Your task to perform on an android device: Go to Yahoo.com Image 0: 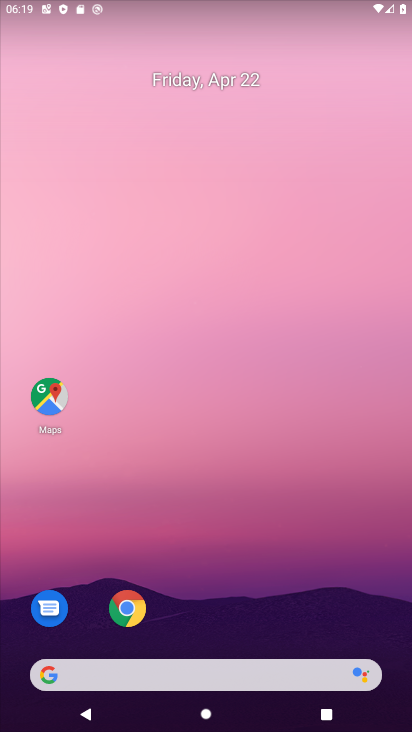
Step 0: click (126, 615)
Your task to perform on an android device: Go to Yahoo.com Image 1: 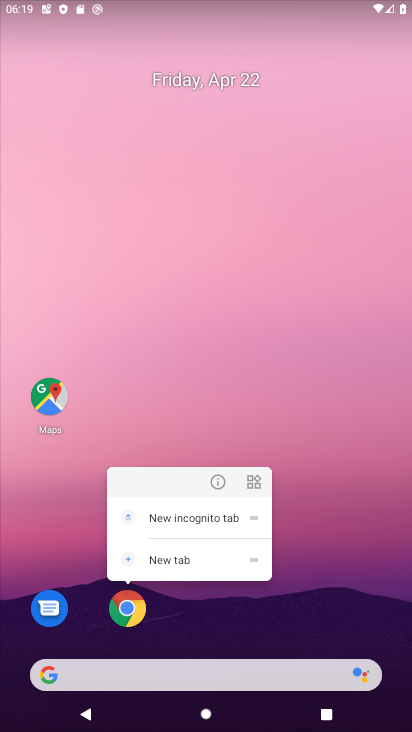
Step 1: click (128, 631)
Your task to perform on an android device: Go to Yahoo.com Image 2: 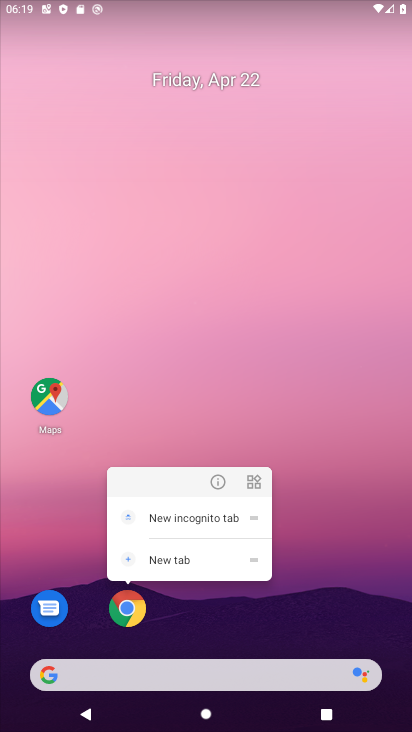
Step 2: click (127, 618)
Your task to perform on an android device: Go to Yahoo.com Image 3: 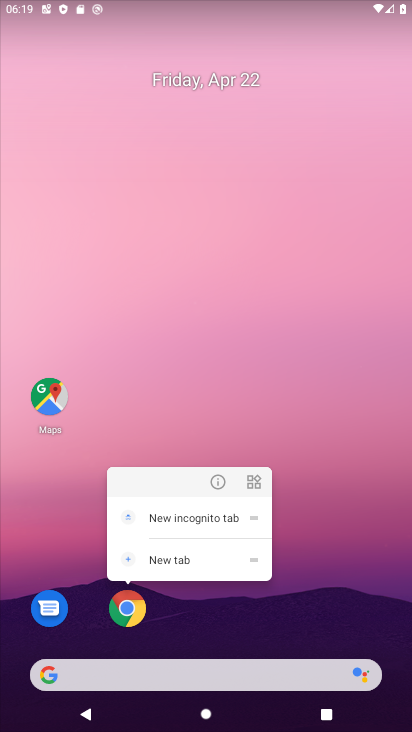
Step 3: click (122, 605)
Your task to perform on an android device: Go to Yahoo.com Image 4: 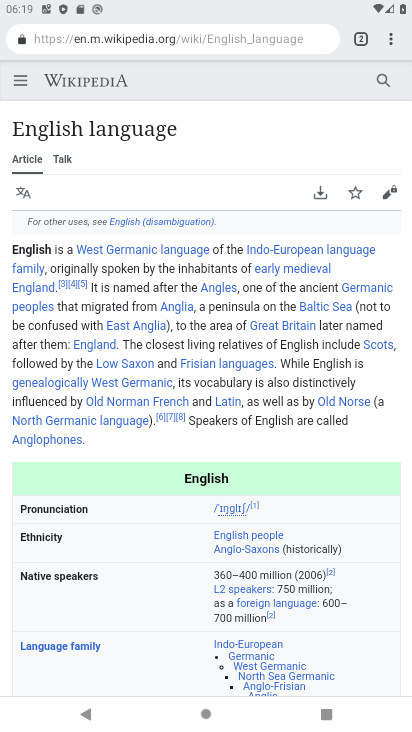
Step 4: click (363, 38)
Your task to perform on an android device: Go to Yahoo.com Image 5: 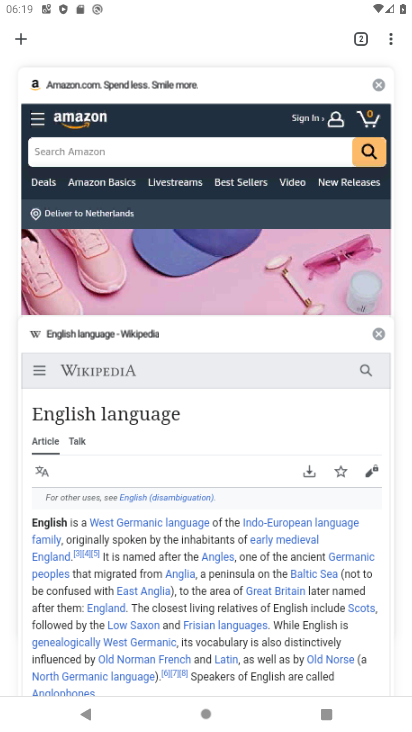
Step 5: click (376, 82)
Your task to perform on an android device: Go to Yahoo.com Image 6: 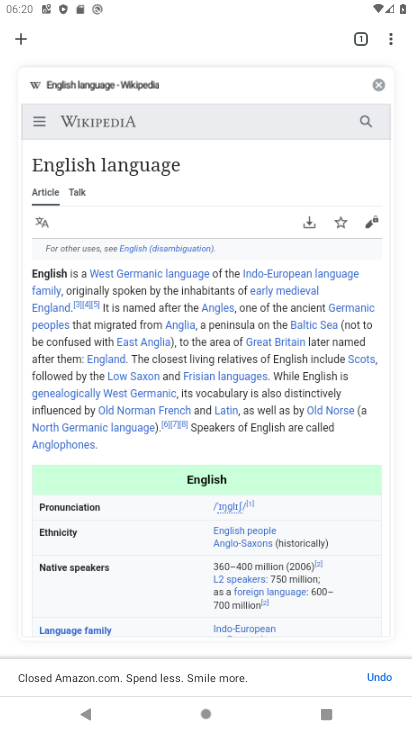
Step 6: click (381, 88)
Your task to perform on an android device: Go to Yahoo.com Image 7: 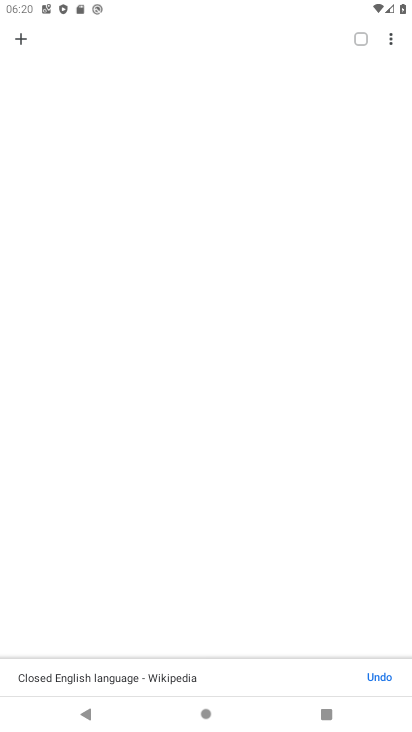
Step 7: click (19, 42)
Your task to perform on an android device: Go to Yahoo.com Image 8: 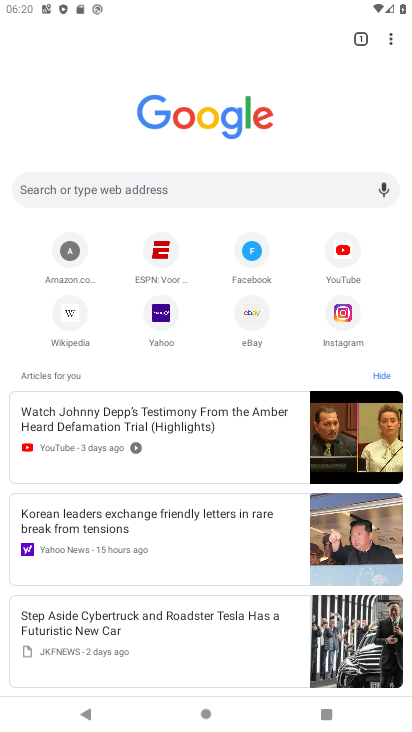
Step 8: click (170, 317)
Your task to perform on an android device: Go to Yahoo.com Image 9: 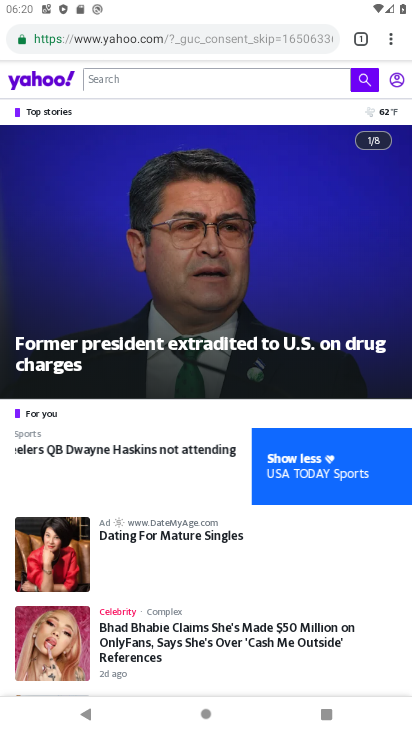
Step 9: task complete